Your task to perform on an android device: Open calendar and show me the second week of next month Image 0: 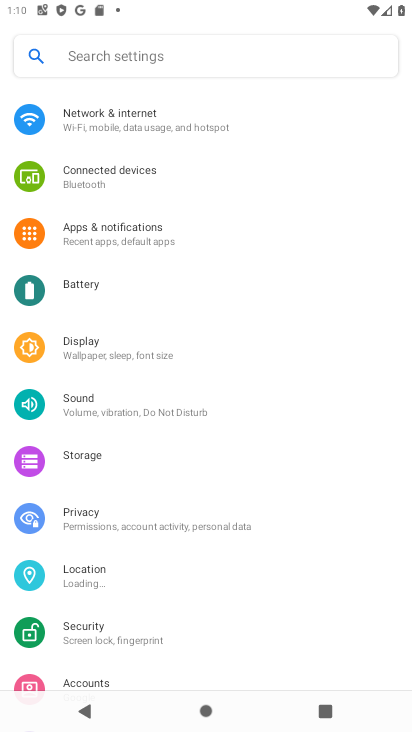
Step 0: drag from (198, 603) to (239, 105)
Your task to perform on an android device: Open calendar and show me the second week of next month Image 1: 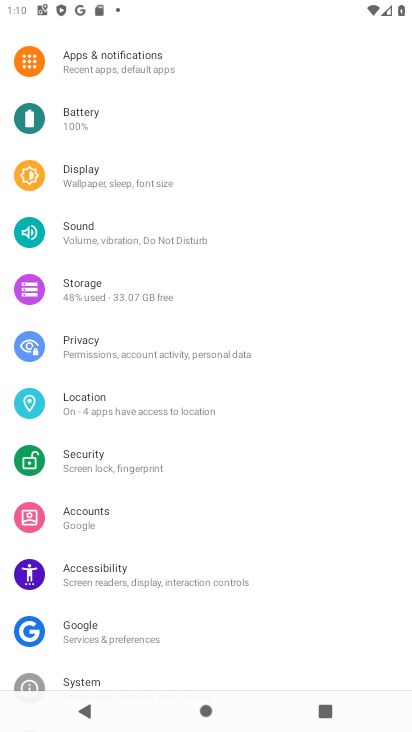
Step 1: click (387, 489)
Your task to perform on an android device: Open calendar and show me the second week of next month Image 2: 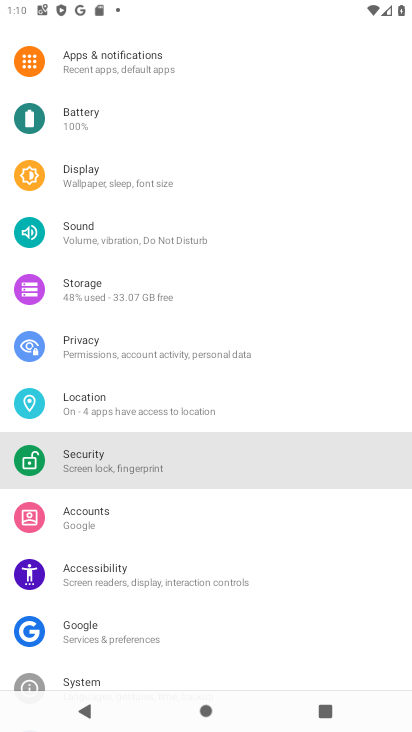
Step 2: press home button
Your task to perform on an android device: Open calendar and show me the second week of next month Image 3: 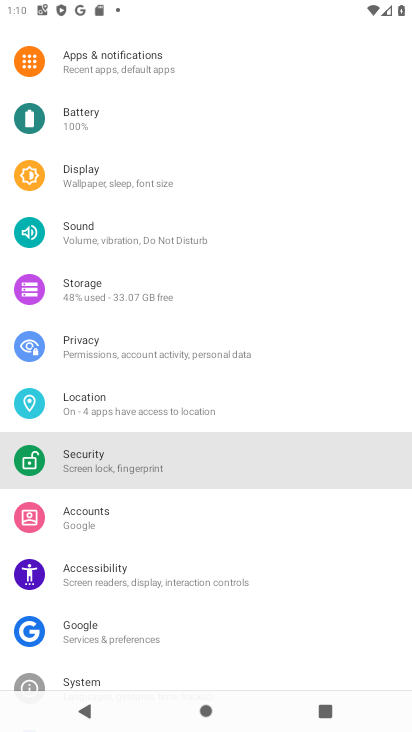
Step 3: drag from (409, 486) to (403, 357)
Your task to perform on an android device: Open calendar and show me the second week of next month Image 4: 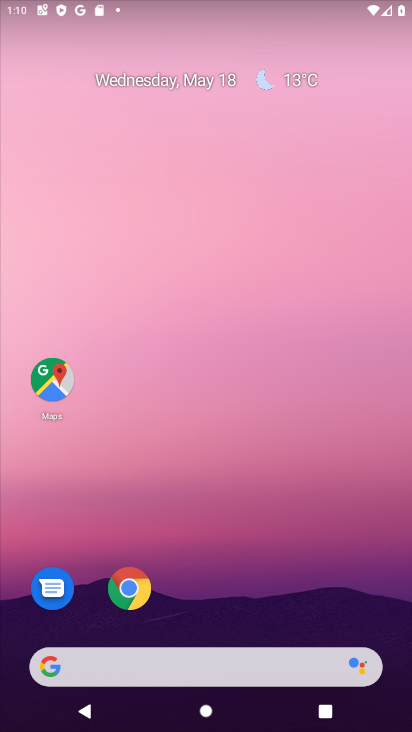
Step 4: drag from (208, 608) to (243, 19)
Your task to perform on an android device: Open calendar and show me the second week of next month Image 5: 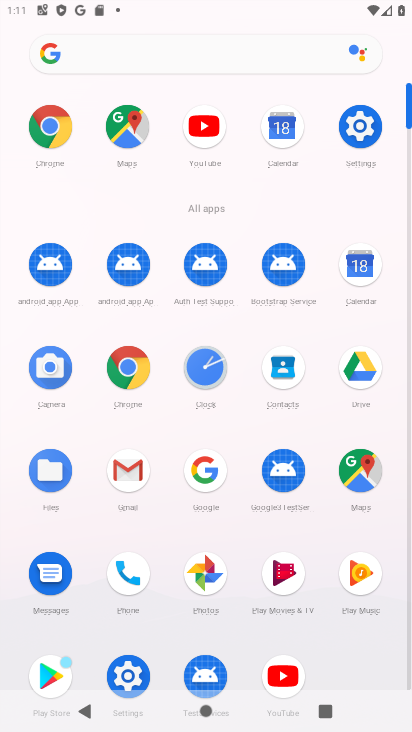
Step 5: click (358, 261)
Your task to perform on an android device: Open calendar and show me the second week of next month Image 6: 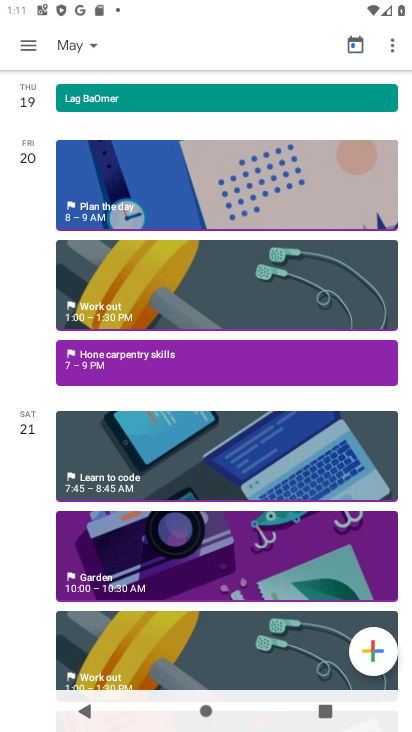
Step 6: click (81, 41)
Your task to perform on an android device: Open calendar and show me the second week of next month Image 7: 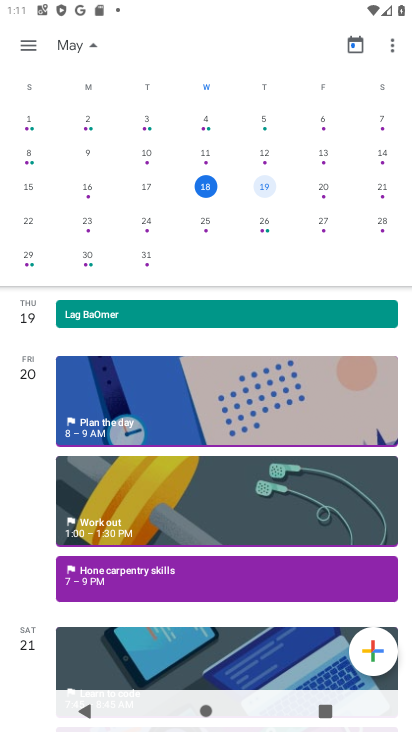
Step 7: drag from (379, 179) to (7, 137)
Your task to perform on an android device: Open calendar and show me the second week of next month Image 8: 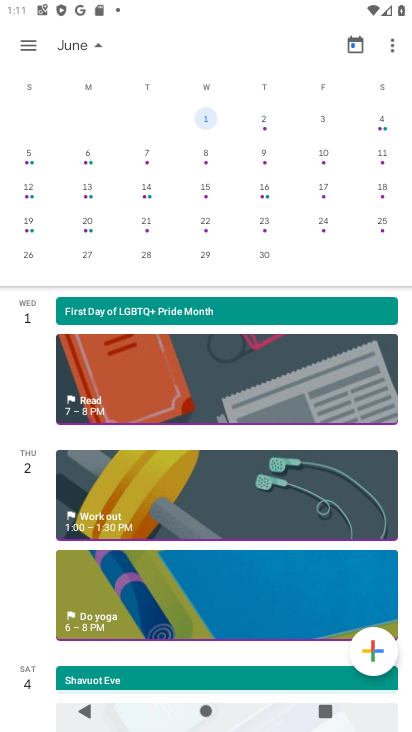
Step 8: click (206, 156)
Your task to perform on an android device: Open calendar and show me the second week of next month Image 9: 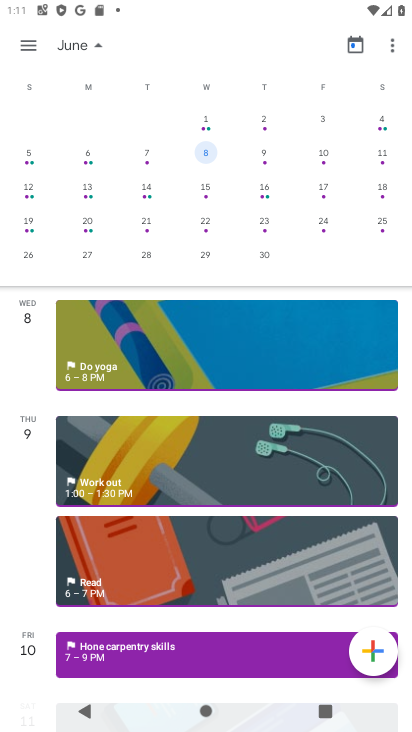
Step 9: task complete